Your task to perform on an android device: Go to wifi settings Image 0: 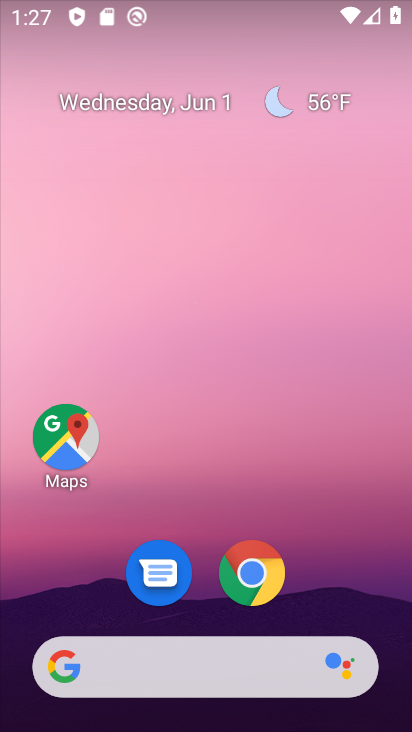
Step 0: click (253, 26)
Your task to perform on an android device: Go to wifi settings Image 1: 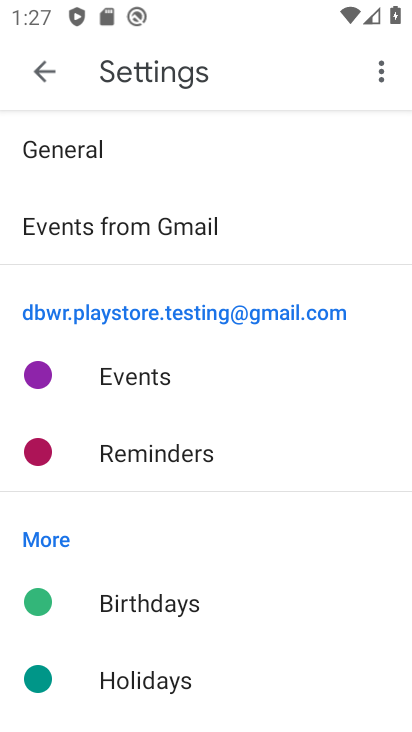
Step 1: drag from (194, 598) to (298, 64)
Your task to perform on an android device: Go to wifi settings Image 2: 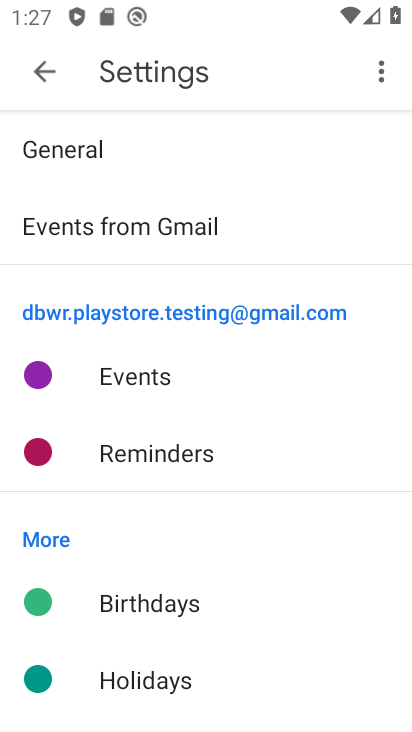
Step 2: press home button
Your task to perform on an android device: Go to wifi settings Image 3: 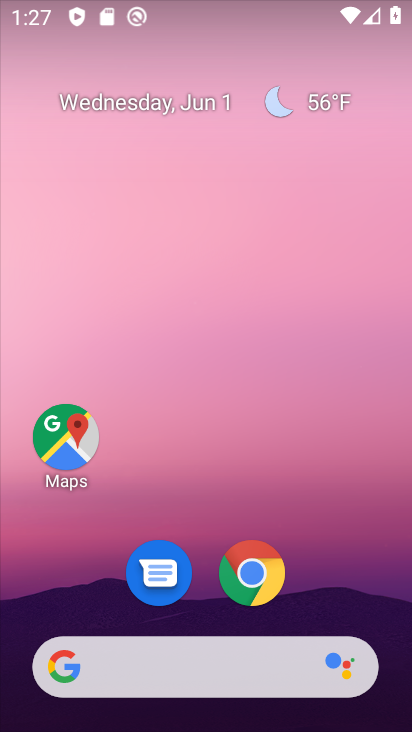
Step 3: drag from (206, 618) to (194, 331)
Your task to perform on an android device: Go to wifi settings Image 4: 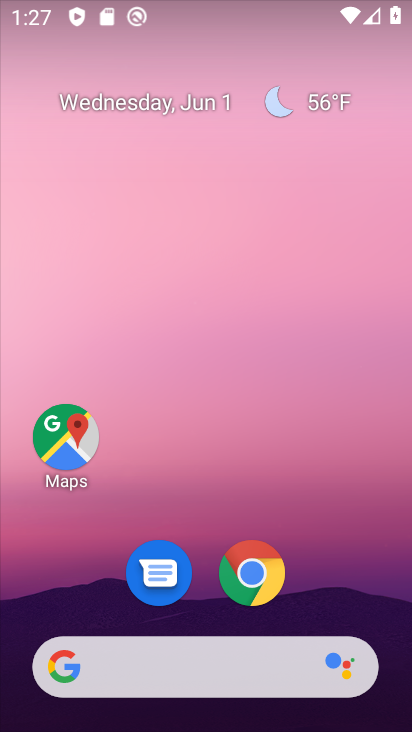
Step 4: drag from (197, 609) to (193, 140)
Your task to perform on an android device: Go to wifi settings Image 5: 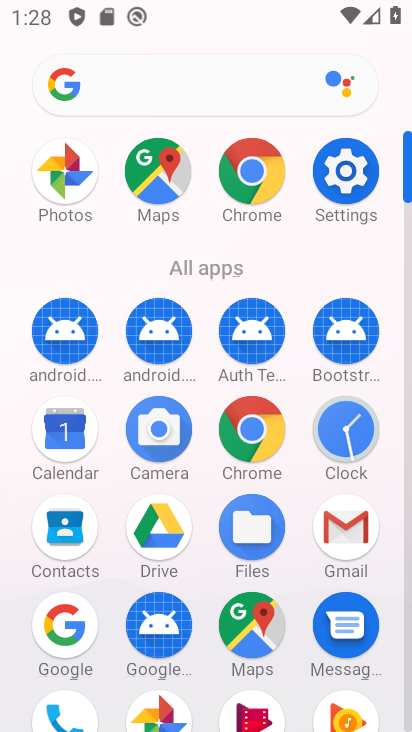
Step 5: click (338, 167)
Your task to perform on an android device: Go to wifi settings Image 6: 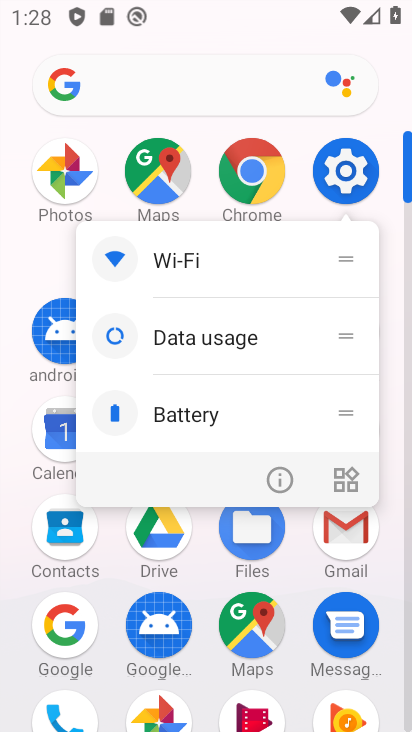
Step 6: click (238, 268)
Your task to perform on an android device: Go to wifi settings Image 7: 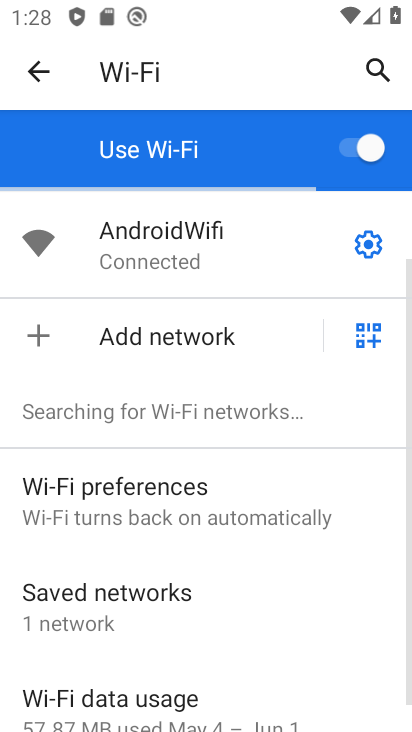
Step 7: click (363, 246)
Your task to perform on an android device: Go to wifi settings Image 8: 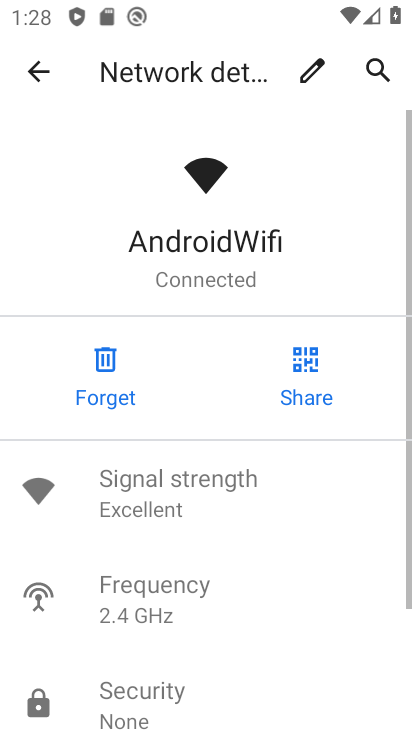
Step 8: task complete